Your task to perform on an android device: change your default location settings in chrome Image 0: 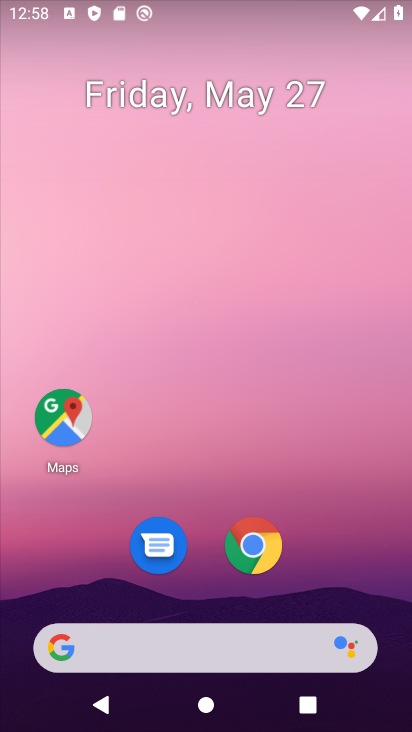
Step 0: drag from (220, 671) to (120, 142)
Your task to perform on an android device: change your default location settings in chrome Image 1: 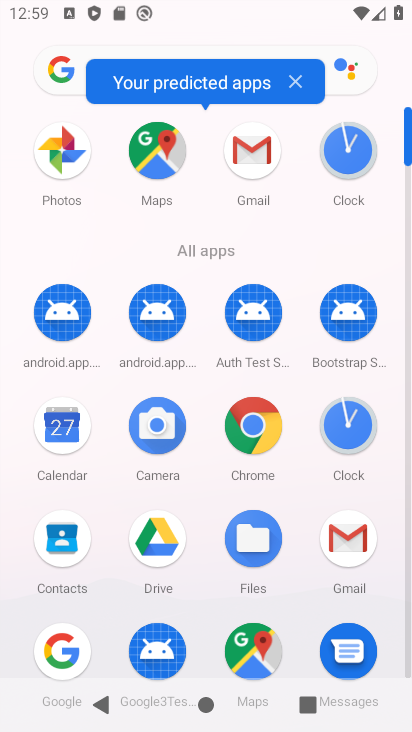
Step 1: click (253, 420)
Your task to perform on an android device: change your default location settings in chrome Image 2: 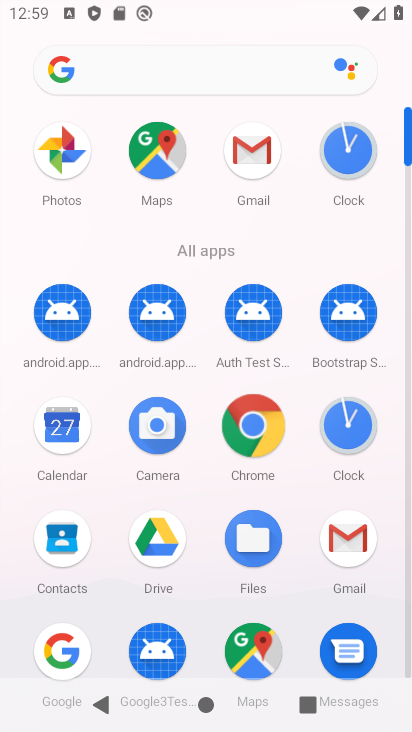
Step 2: click (253, 420)
Your task to perform on an android device: change your default location settings in chrome Image 3: 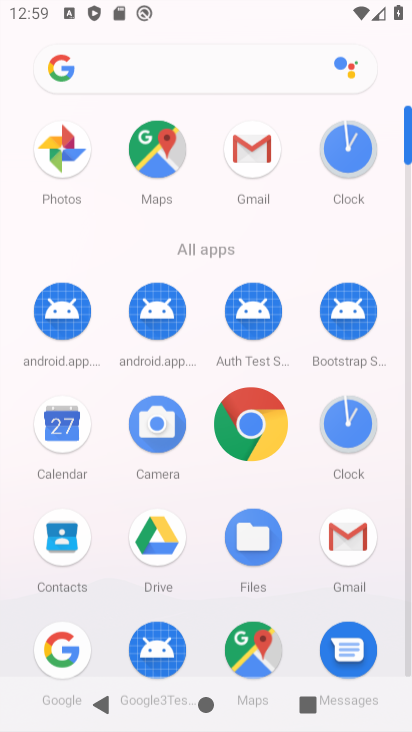
Step 3: click (253, 419)
Your task to perform on an android device: change your default location settings in chrome Image 4: 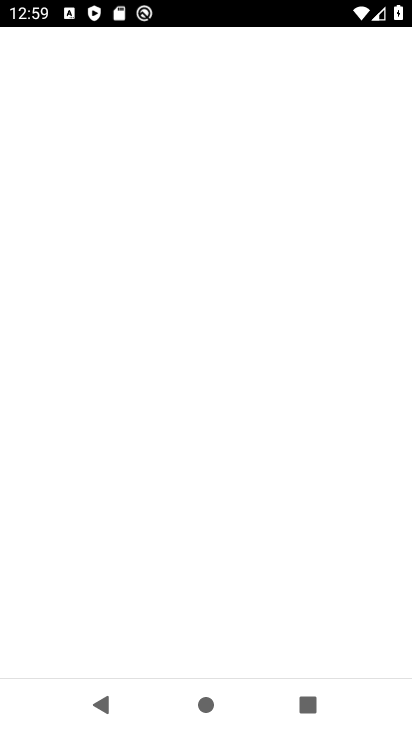
Step 4: click (254, 415)
Your task to perform on an android device: change your default location settings in chrome Image 5: 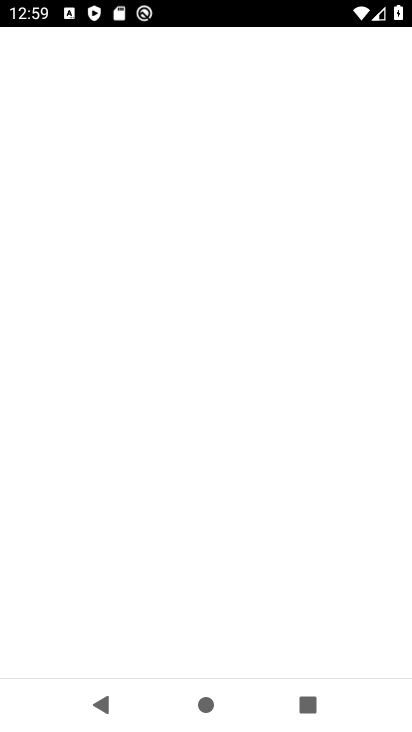
Step 5: click (256, 415)
Your task to perform on an android device: change your default location settings in chrome Image 6: 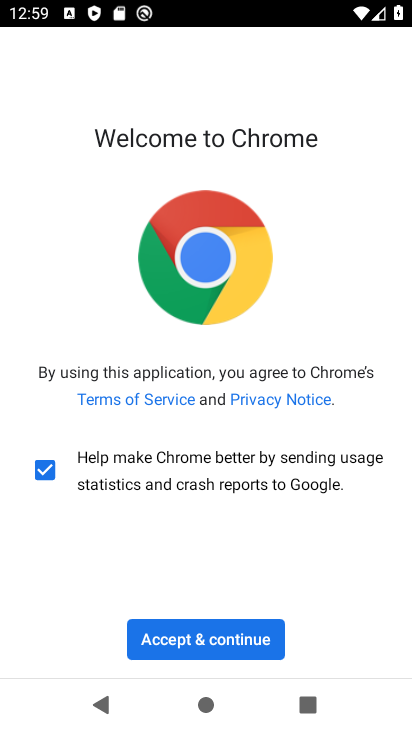
Step 6: click (254, 415)
Your task to perform on an android device: change your default location settings in chrome Image 7: 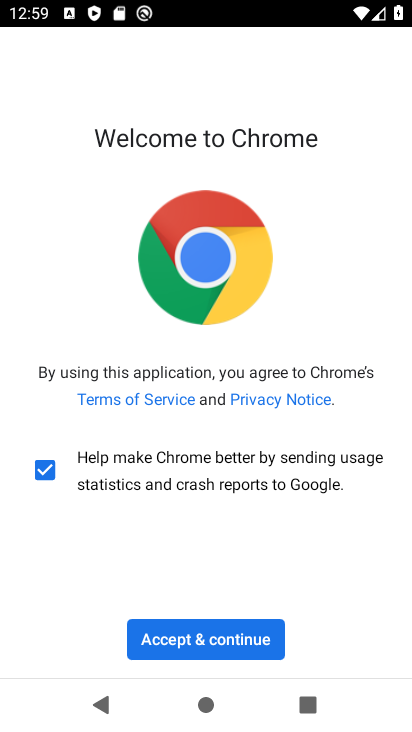
Step 7: click (209, 633)
Your task to perform on an android device: change your default location settings in chrome Image 8: 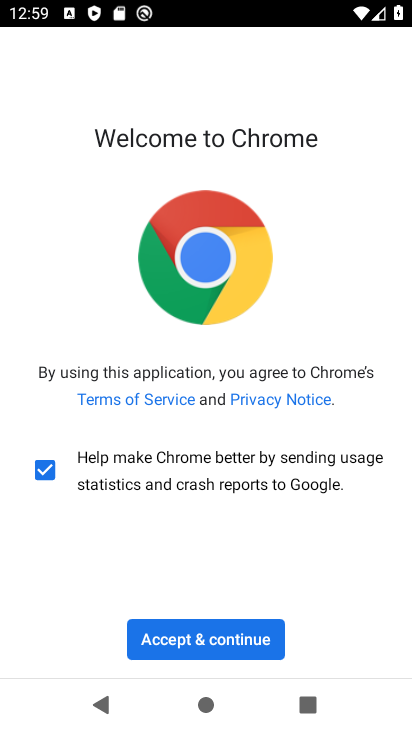
Step 8: click (210, 636)
Your task to perform on an android device: change your default location settings in chrome Image 9: 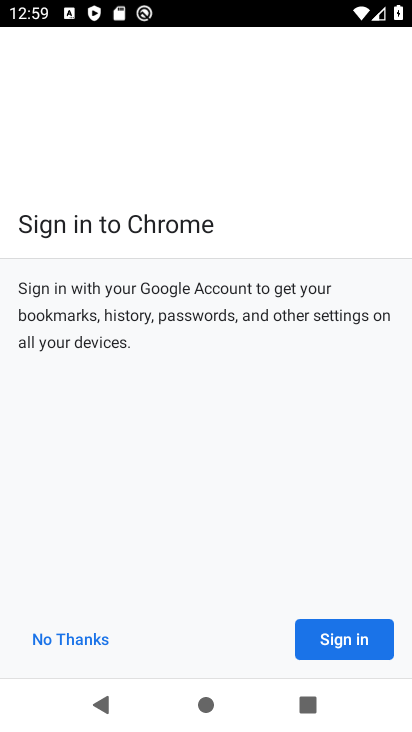
Step 9: click (227, 623)
Your task to perform on an android device: change your default location settings in chrome Image 10: 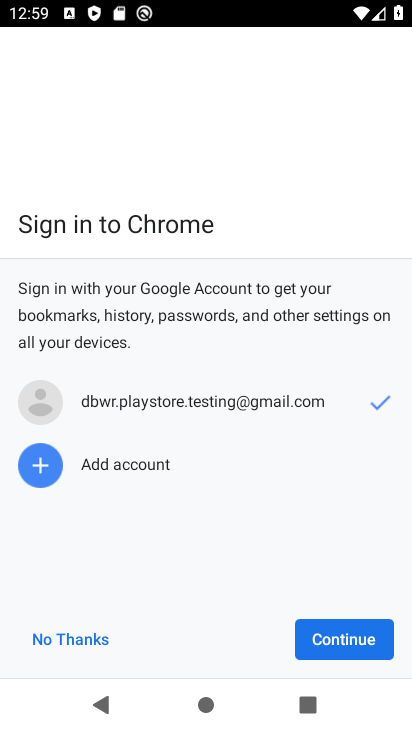
Step 10: click (228, 626)
Your task to perform on an android device: change your default location settings in chrome Image 11: 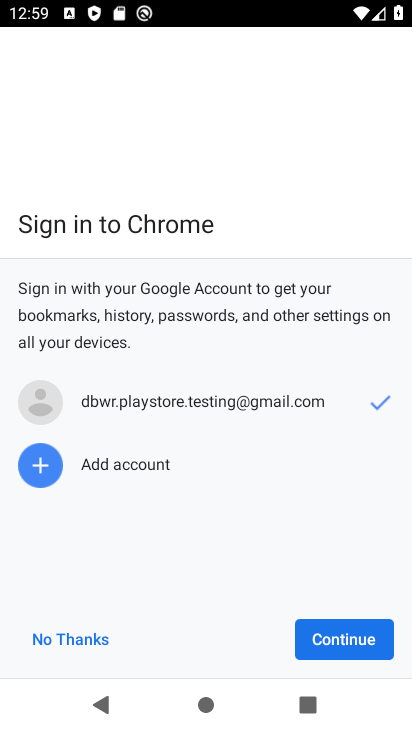
Step 11: click (228, 632)
Your task to perform on an android device: change your default location settings in chrome Image 12: 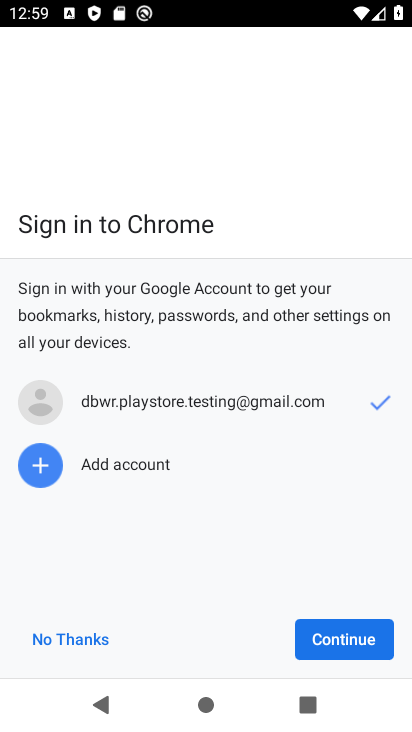
Step 12: click (229, 643)
Your task to perform on an android device: change your default location settings in chrome Image 13: 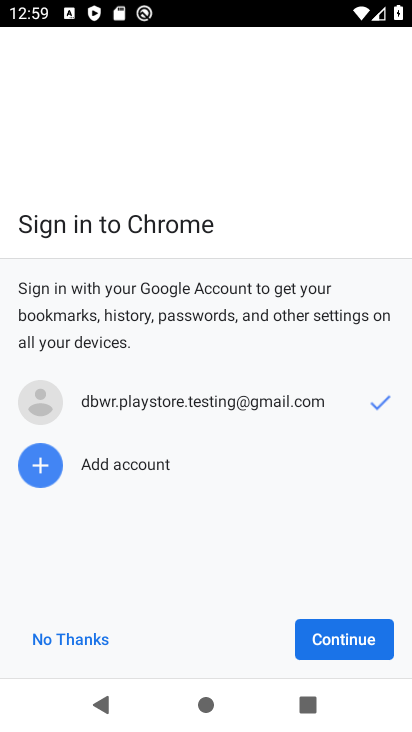
Step 13: click (339, 641)
Your task to perform on an android device: change your default location settings in chrome Image 14: 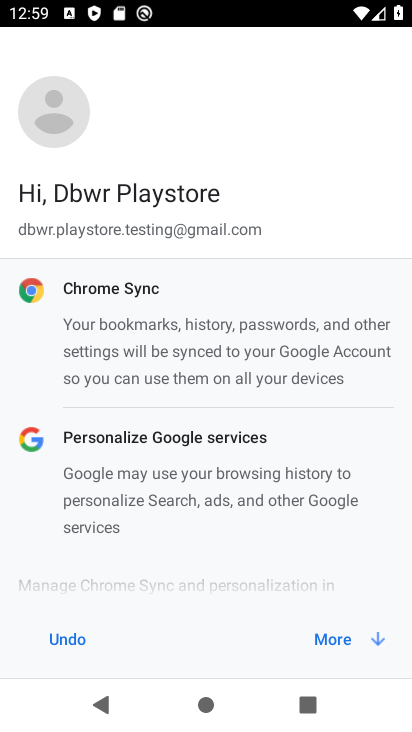
Step 14: click (346, 635)
Your task to perform on an android device: change your default location settings in chrome Image 15: 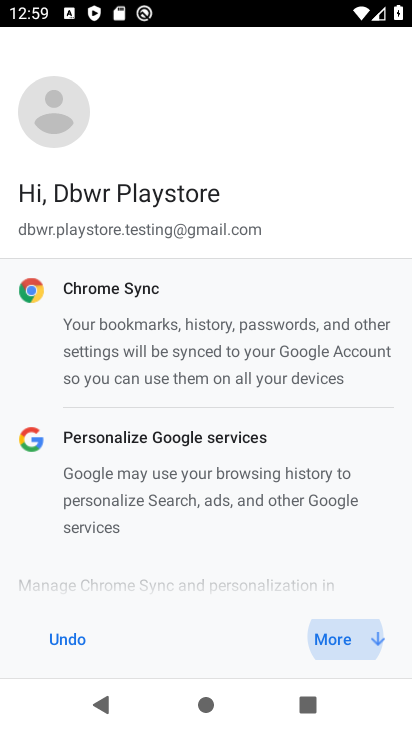
Step 15: click (346, 635)
Your task to perform on an android device: change your default location settings in chrome Image 16: 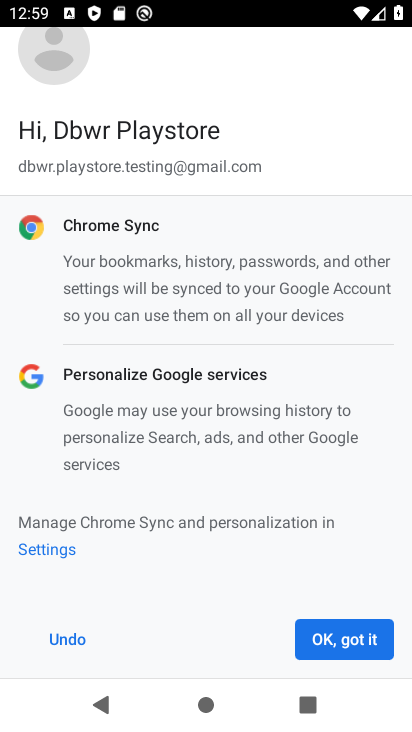
Step 16: click (348, 635)
Your task to perform on an android device: change your default location settings in chrome Image 17: 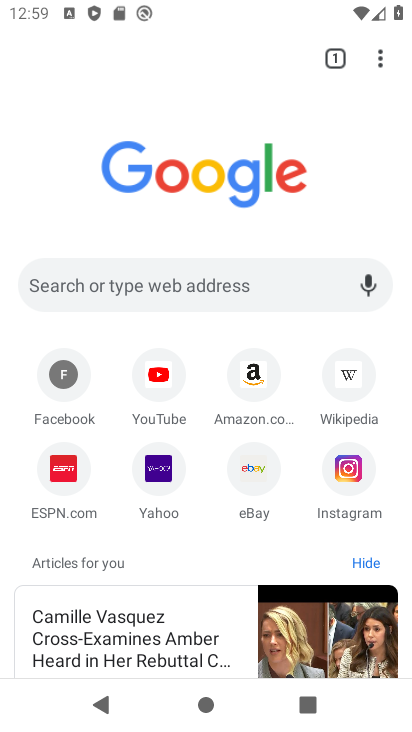
Step 17: click (379, 51)
Your task to perform on an android device: change your default location settings in chrome Image 18: 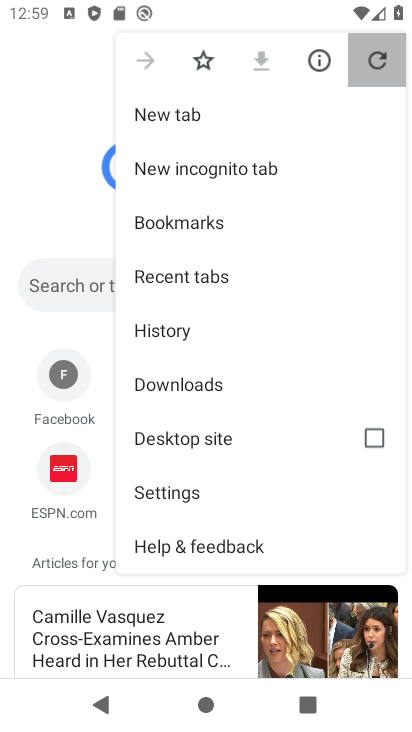
Step 18: click (381, 62)
Your task to perform on an android device: change your default location settings in chrome Image 19: 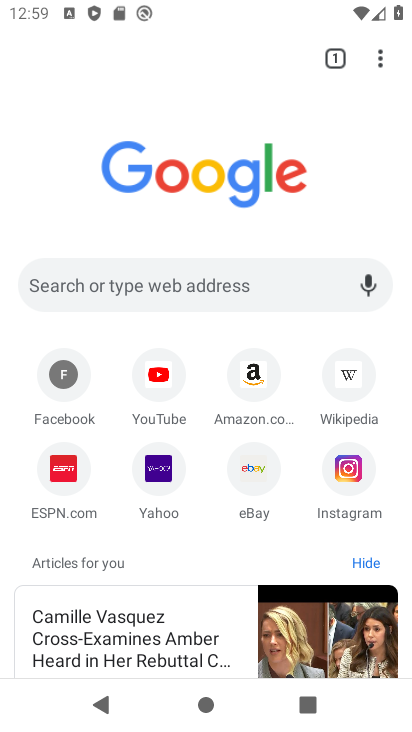
Step 19: drag from (379, 64) to (324, 217)
Your task to perform on an android device: change your default location settings in chrome Image 20: 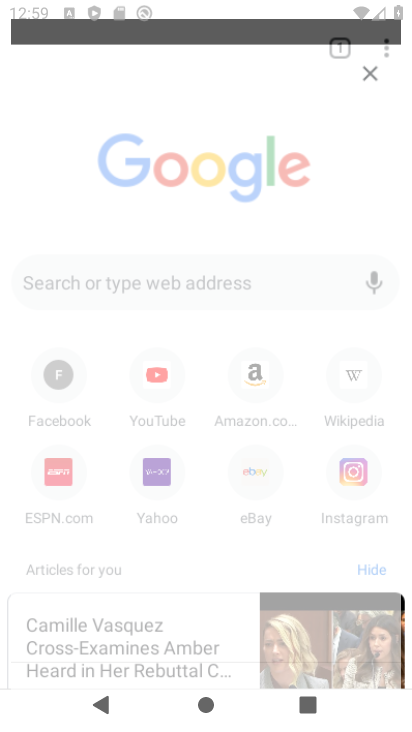
Step 20: drag from (382, 66) to (158, 479)
Your task to perform on an android device: change your default location settings in chrome Image 21: 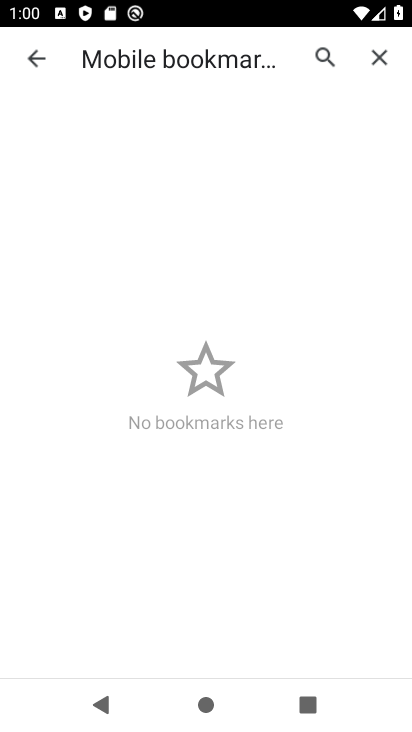
Step 21: click (158, 484)
Your task to perform on an android device: change your default location settings in chrome Image 22: 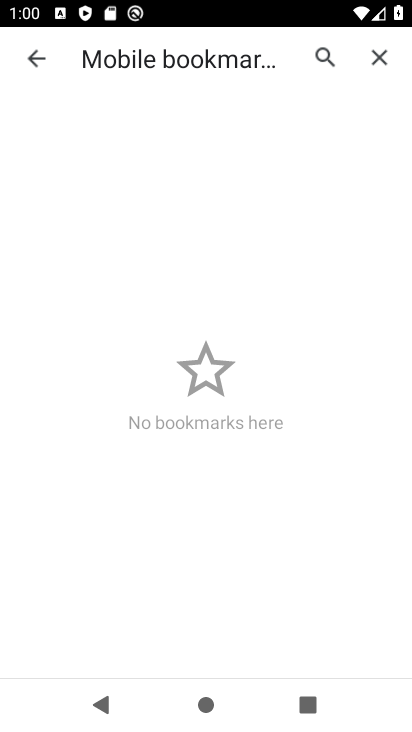
Step 22: click (29, 54)
Your task to perform on an android device: change your default location settings in chrome Image 23: 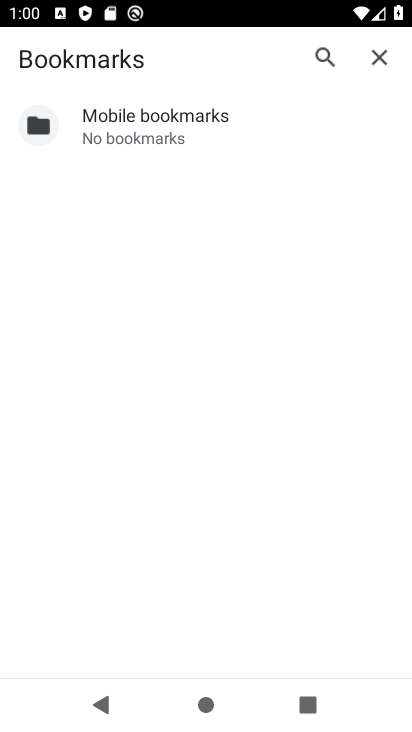
Step 23: task complete